Your task to perform on an android device: turn off smart reply in the gmail app Image 0: 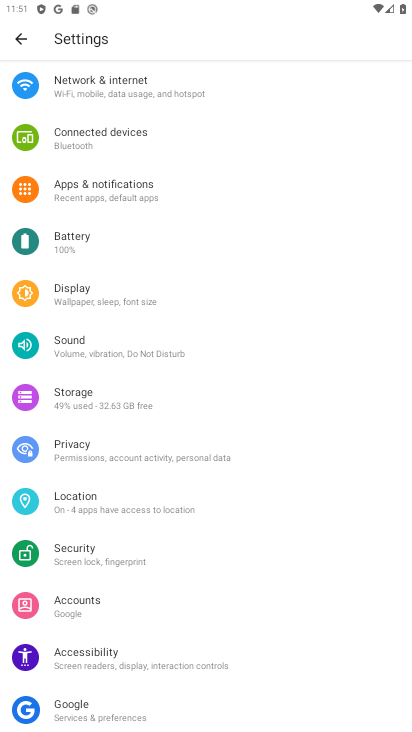
Step 0: press home button
Your task to perform on an android device: turn off smart reply in the gmail app Image 1: 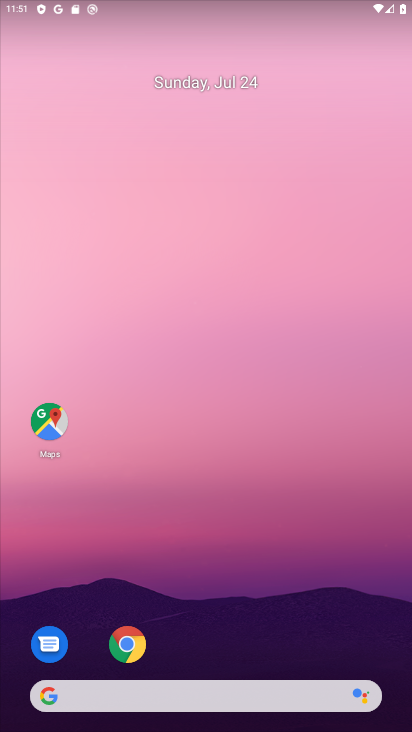
Step 1: drag from (219, 660) to (248, 155)
Your task to perform on an android device: turn off smart reply in the gmail app Image 2: 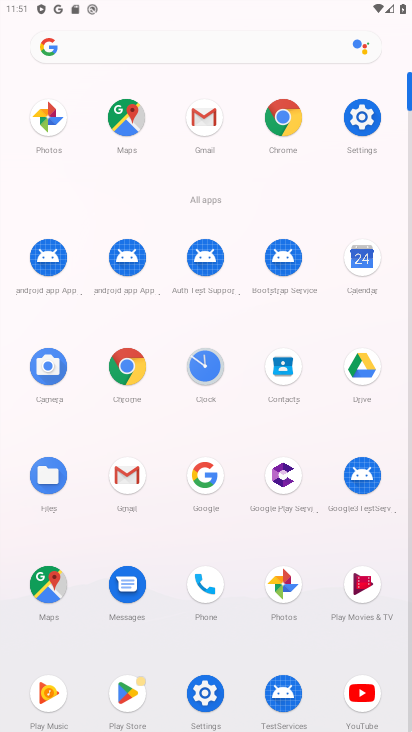
Step 2: click (203, 107)
Your task to perform on an android device: turn off smart reply in the gmail app Image 3: 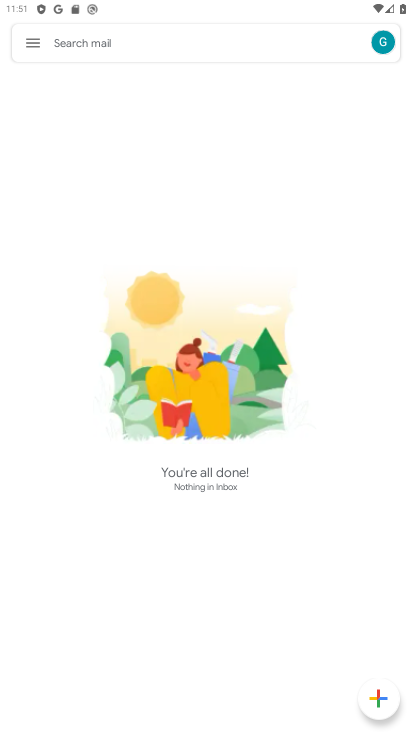
Step 3: click (28, 40)
Your task to perform on an android device: turn off smart reply in the gmail app Image 4: 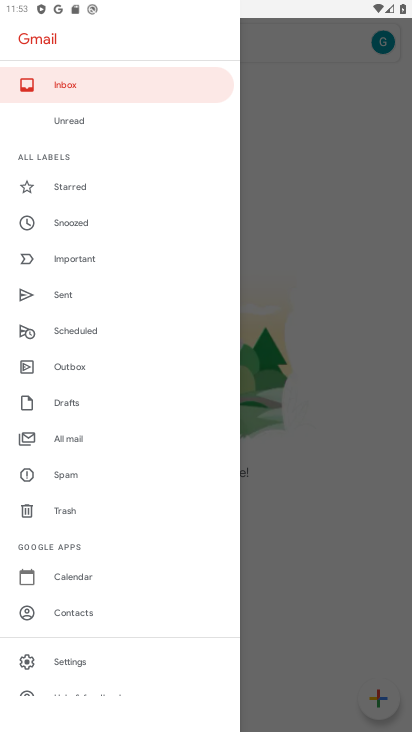
Step 4: click (58, 669)
Your task to perform on an android device: turn off smart reply in the gmail app Image 5: 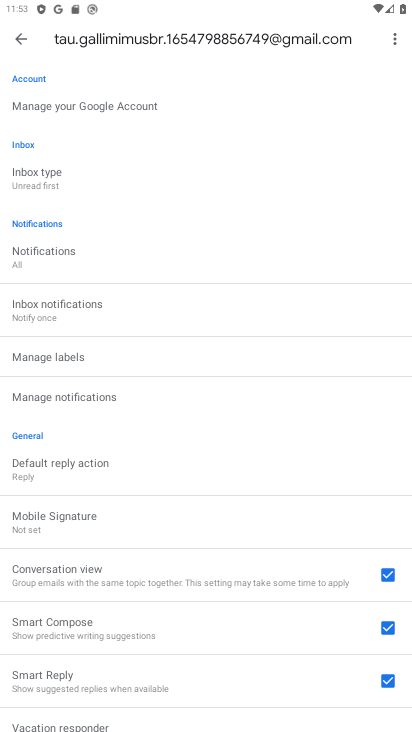
Step 5: click (389, 678)
Your task to perform on an android device: turn off smart reply in the gmail app Image 6: 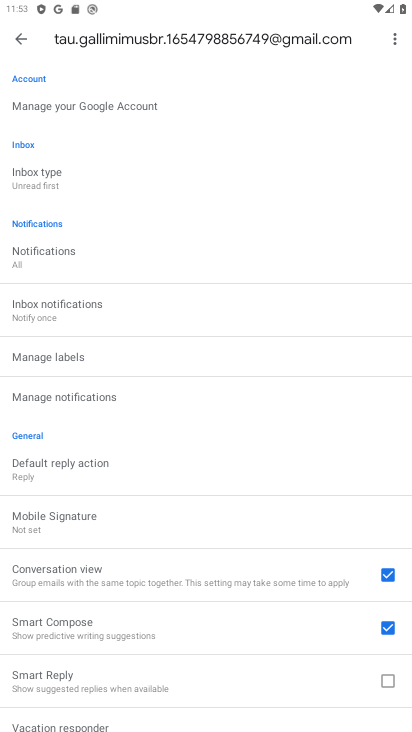
Step 6: task complete